Your task to perform on an android device: Open internet settings Image 0: 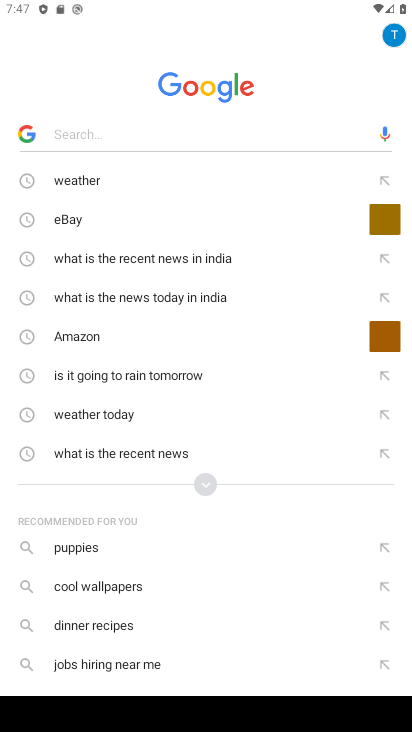
Step 0: press home button
Your task to perform on an android device: Open internet settings Image 1: 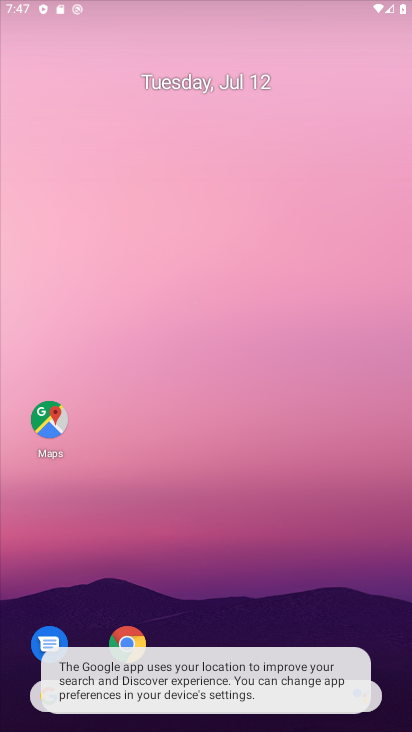
Step 1: press home button
Your task to perform on an android device: Open internet settings Image 2: 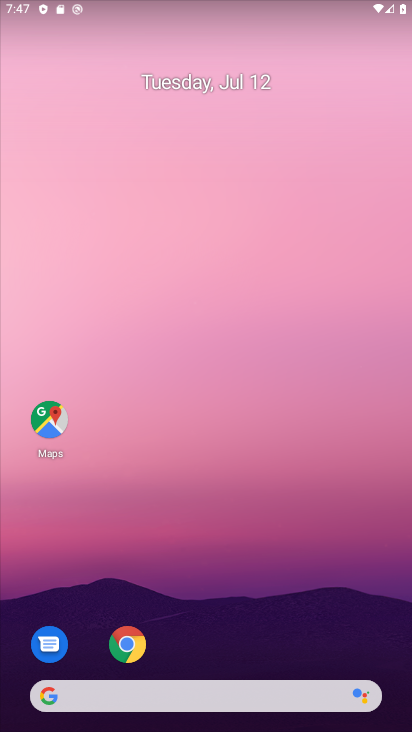
Step 2: drag from (215, 646) to (260, 71)
Your task to perform on an android device: Open internet settings Image 3: 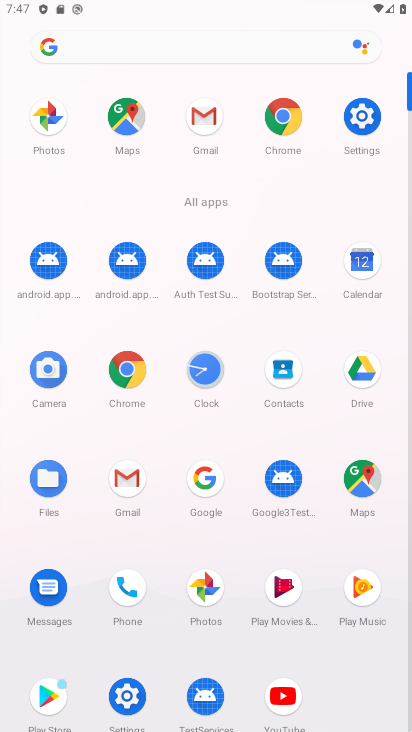
Step 3: click (361, 112)
Your task to perform on an android device: Open internet settings Image 4: 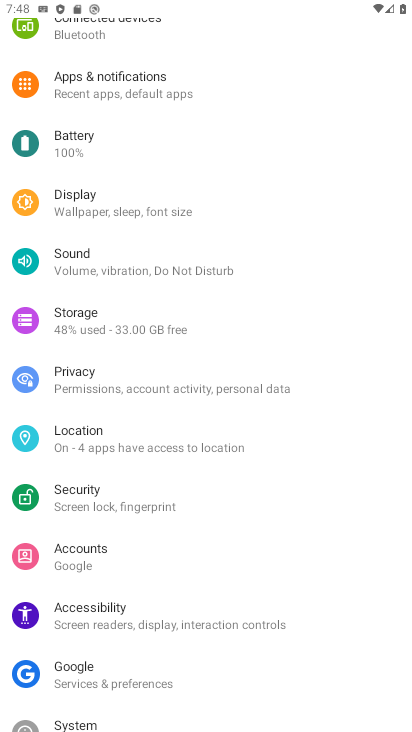
Step 4: drag from (193, 69) to (190, 675)
Your task to perform on an android device: Open internet settings Image 5: 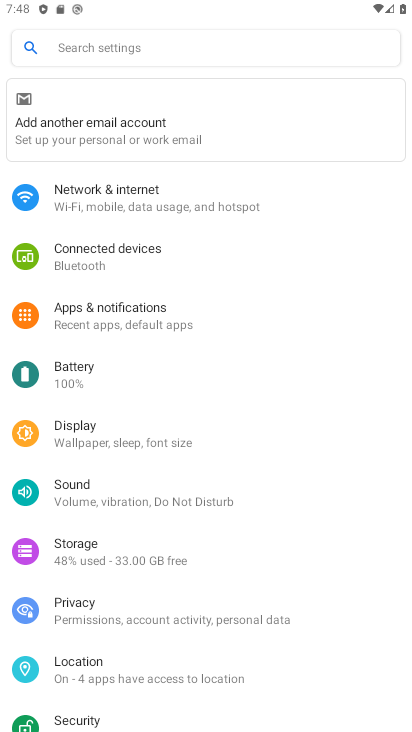
Step 5: click (133, 204)
Your task to perform on an android device: Open internet settings Image 6: 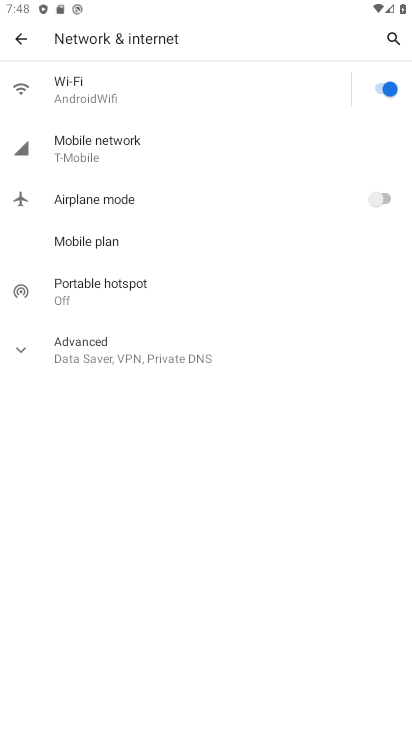
Step 6: click (27, 343)
Your task to perform on an android device: Open internet settings Image 7: 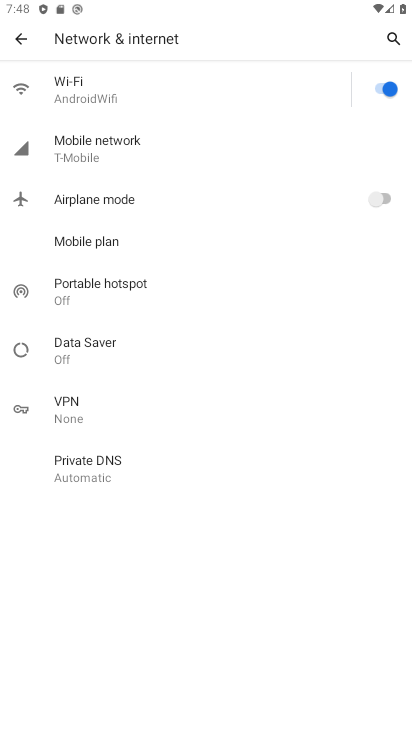
Step 7: task complete